Your task to perform on an android device: What's the news in Ecuador? Image 0: 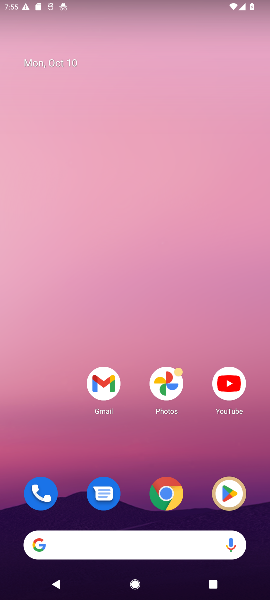
Step 0: click (109, 550)
Your task to perform on an android device: What's the news in Ecuador? Image 1: 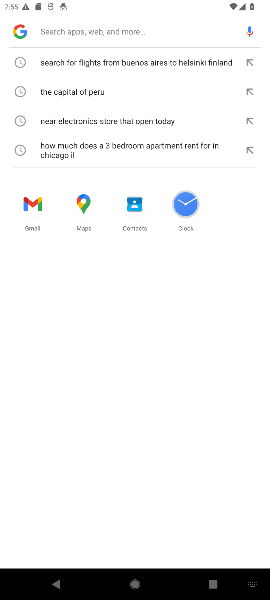
Step 1: type "What's the news in Ecuador?"
Your task to perform on an android device: What's the news in Ecuador? Image 2: 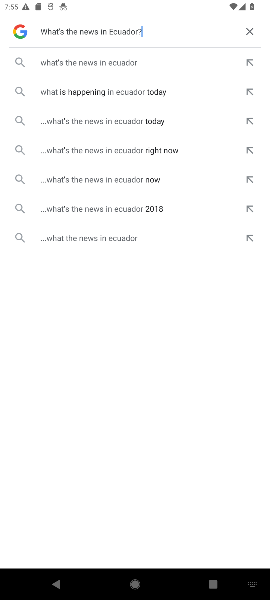
Step 2: click (108, 60)
Your task to perform on an android device: What's the news in Ecuador? Image 3: 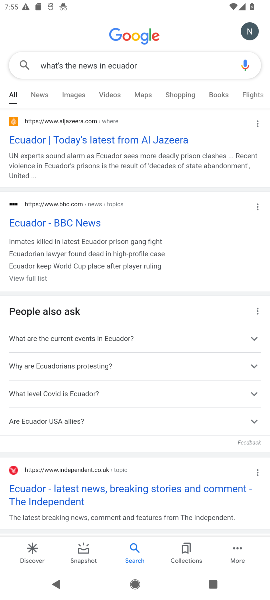
Step 3: task complete